Your task to perform on an android device: Open Google Maps and go to "Timeline" Image 0: 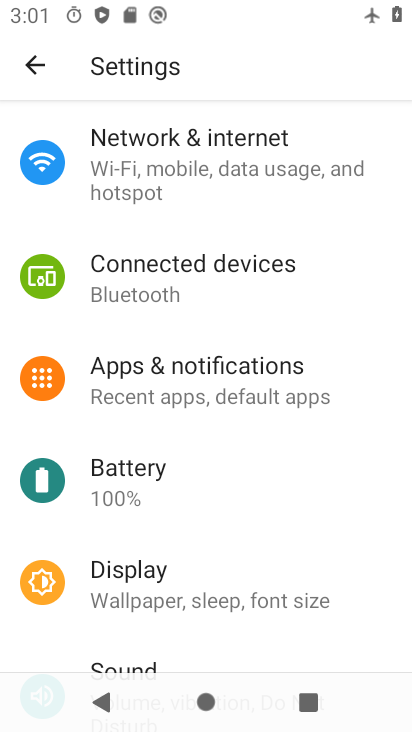
Step 0: press home button
Your task to perform on an android device: Open Google Maps and go to "Timeline" Image 1: 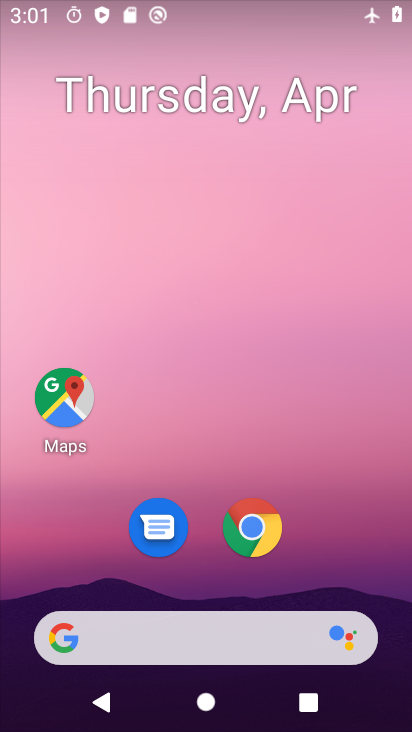
Step 1: click (46, 387)
Your task to perform on an android device: Open Google Maps and go to "Timeline" Image 2: 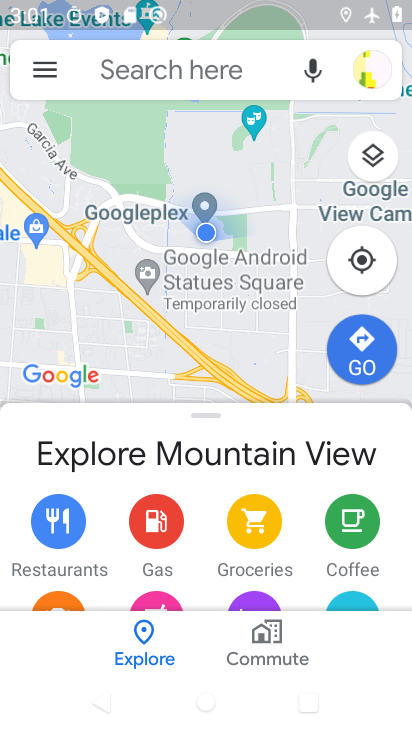
Step 2: click (41, 63)
Your task to perform on an android device: Open Google Maps and go to "Timeline" Image 3: 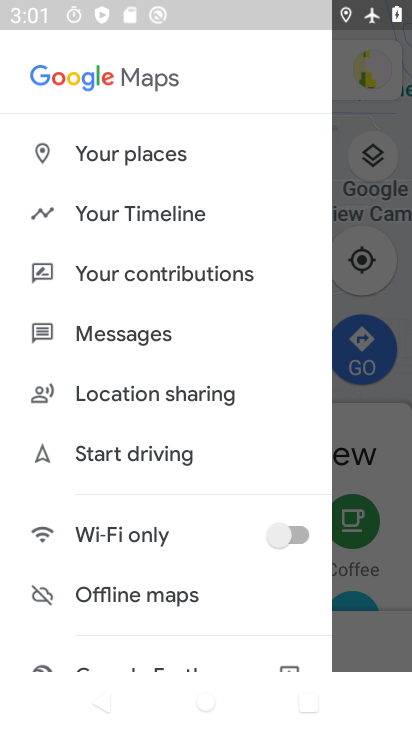
Step 3: click (171, 228)
Your task to perform on an android device: Open Google Maps and go to "Timeline" Image 4: 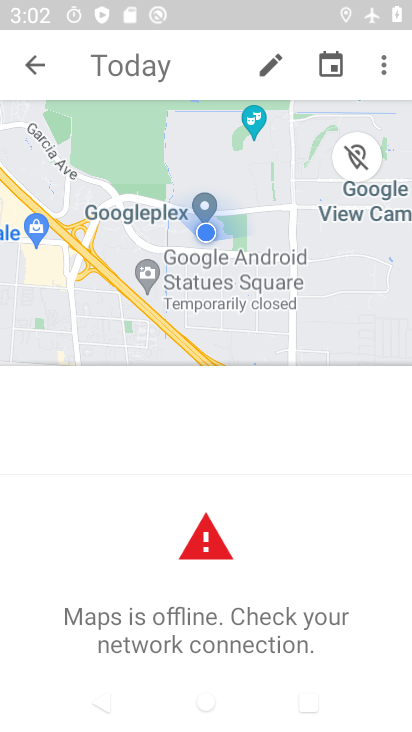
Step 4: task complete